Your task to perform on an android device: Check the news Image 0: 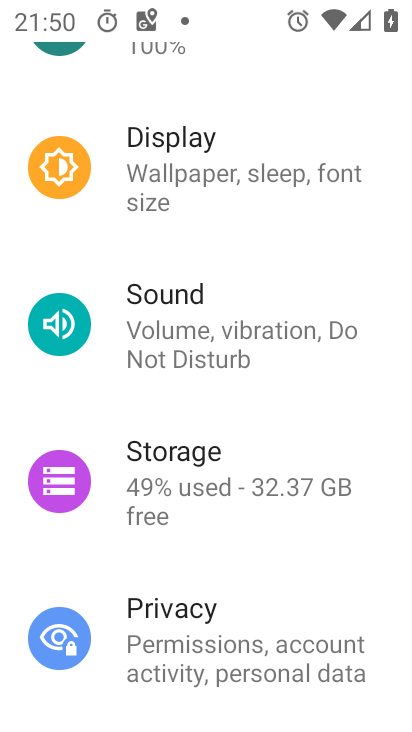
Step 0: press home button
Your task to perform on an android device: Check the news Image 1: 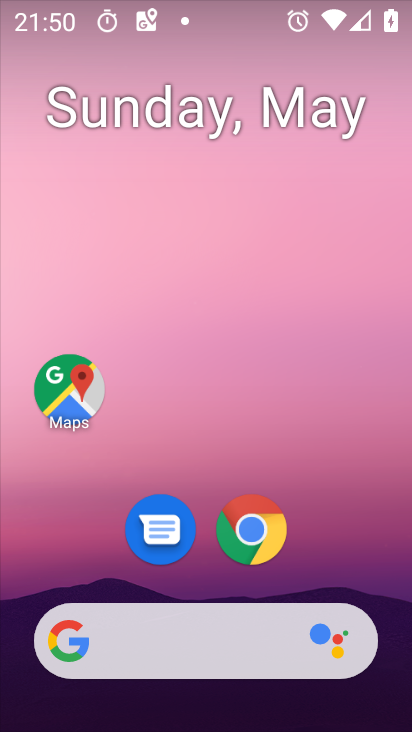
Step 1: click (140, 642)
Your task to perform on an android device: Check the news Image 2: 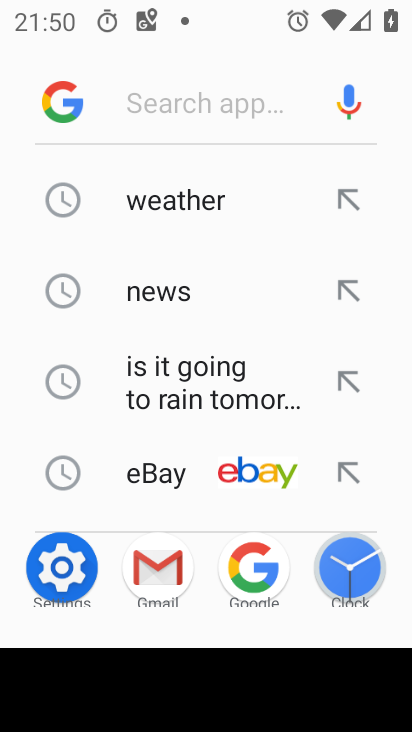
Step 2: click (141, 294)
Your task to perform on an android device: Check the news Image 3: 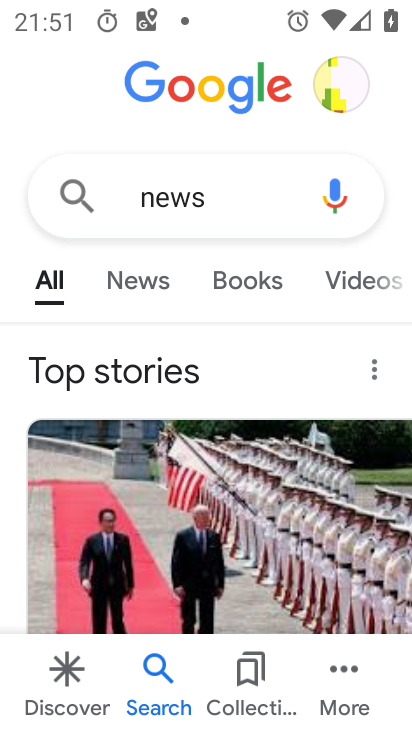
Step 3: click (141, 292)
Your task to perform on an android device: Check the news Image 4: 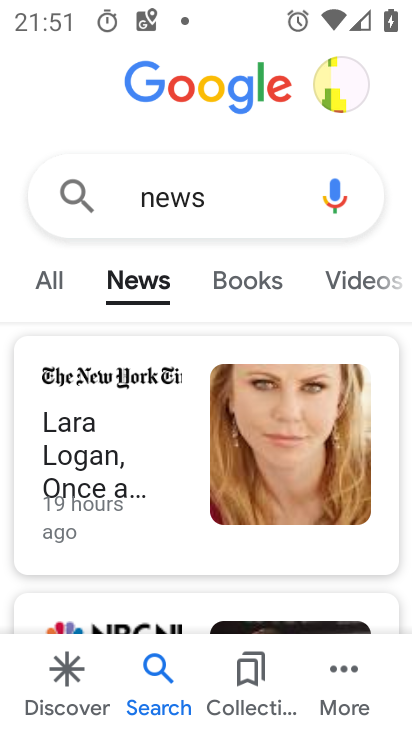
Step 4: task complete